Your task to perform on an android device: delete location history Image 0: 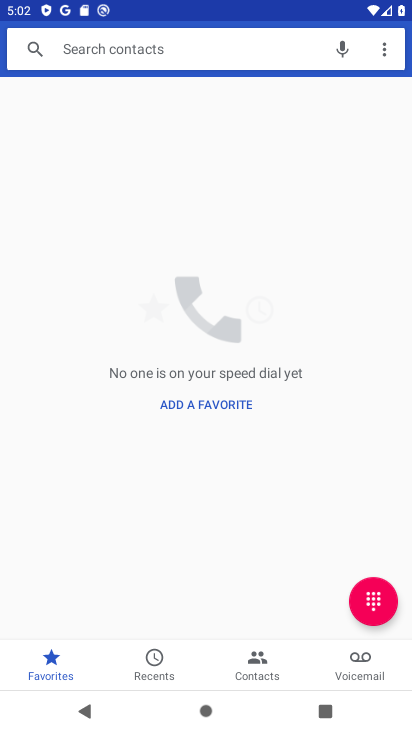
Step 0: press home button
Your task to perform on an android device: delete location history Image 1: 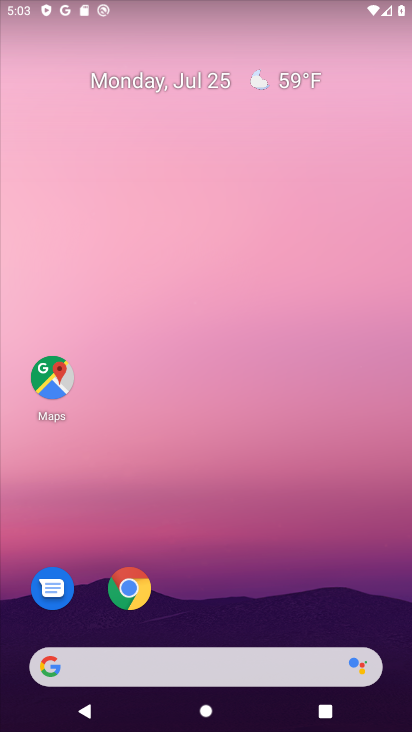
Step 1: drag from (254, 562) to (215, 119)
Your task to perform on an android device: delete location history Image 2: 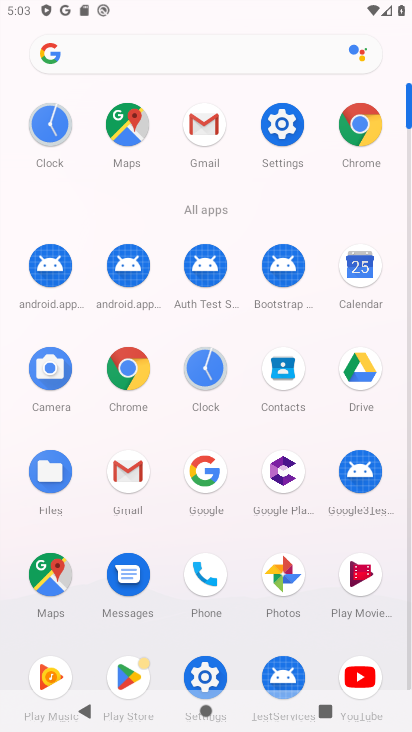
Step 2: click (277, 140)
Your task to perform on an android device: delete location history Image 3: 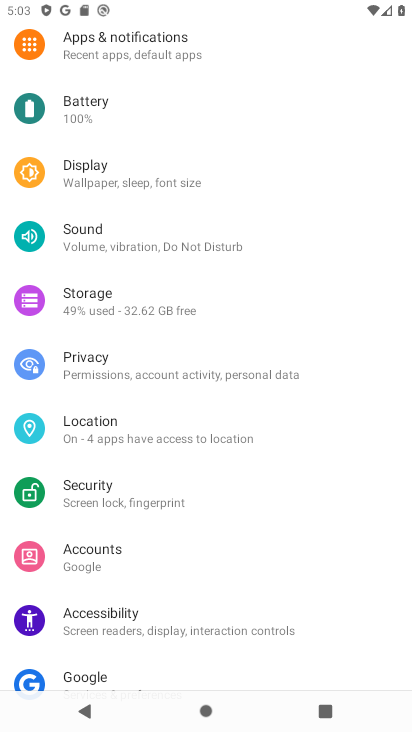
Step 3: click (112, 435)
Your task to perform on an android device: delete location history Image 4: 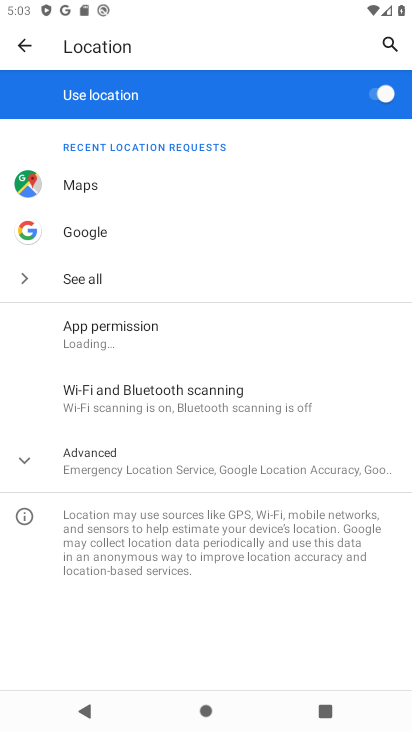
Step 4: task complete